Your task to perform on an android device: show emergency info Image 0: 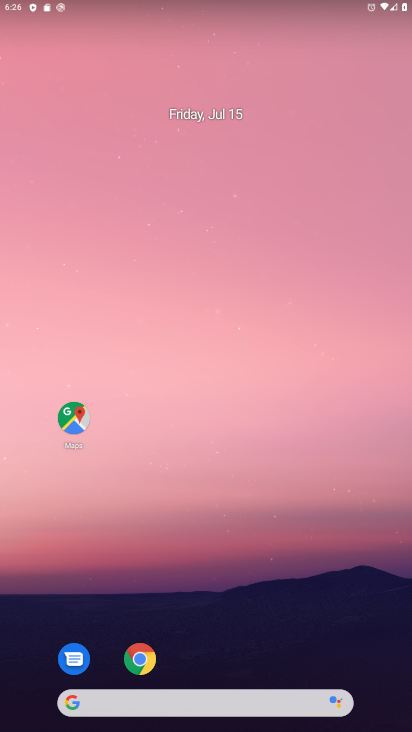
Step 0: drag from (374, 657) to (314, 180)
Your task to perform on an android device: show emergency info Image 1: 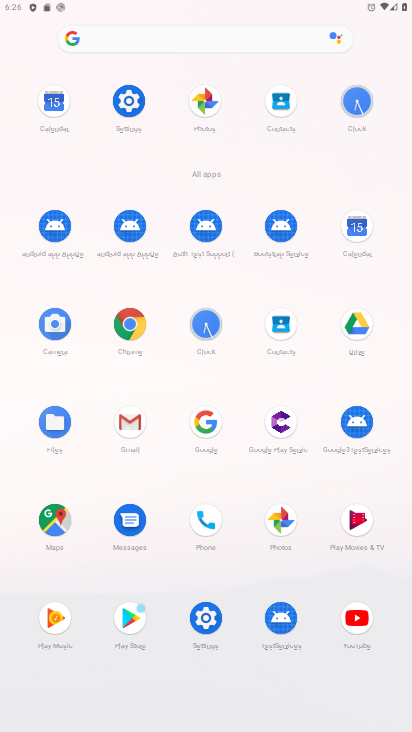
Step 1: click (205, 615)
Your task to perform on an android device: show emergency info Image 2: 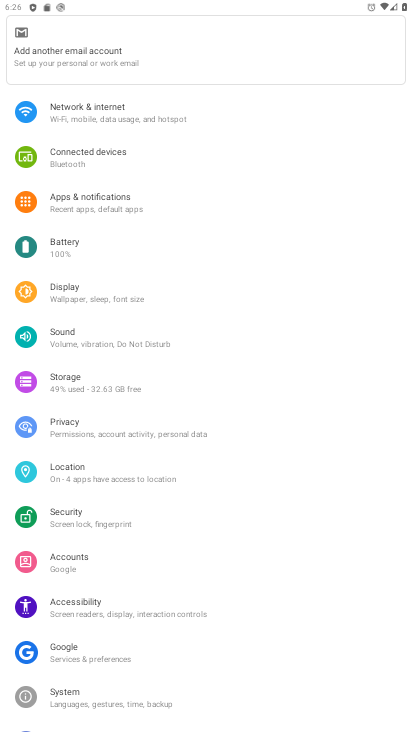
Step 2: drag from (230, 640) to (196, 205)
Your task to perform on an android device: show emergency info Image 3: 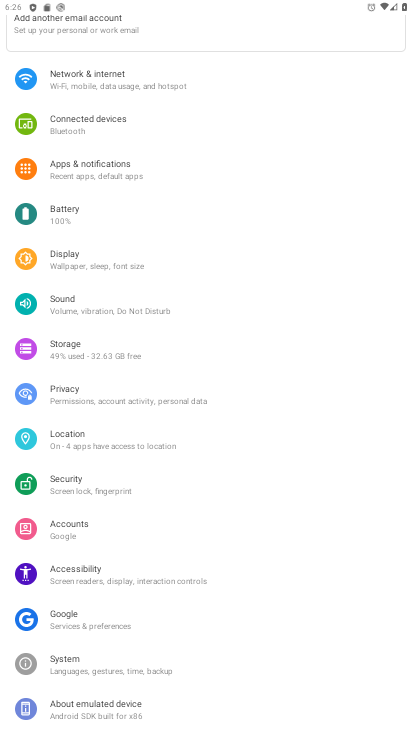
Step 3: click (84, 707)
Your task to perform on an android device: show emergency info Image 4: 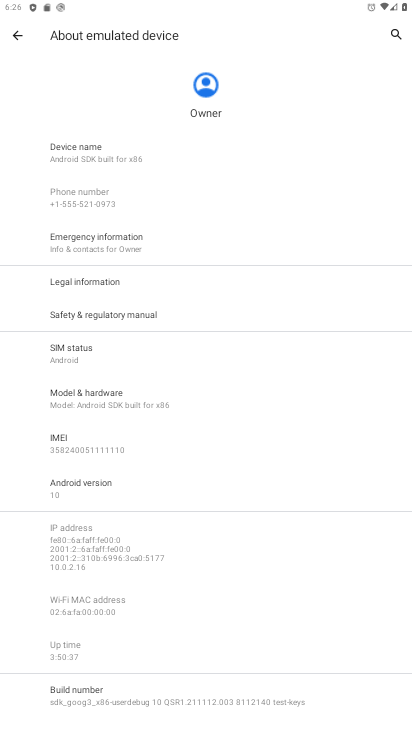
Step 4: drag from (250, 610) to (215, 207)
Your task to perform on an android device: show emergency info Image 5: 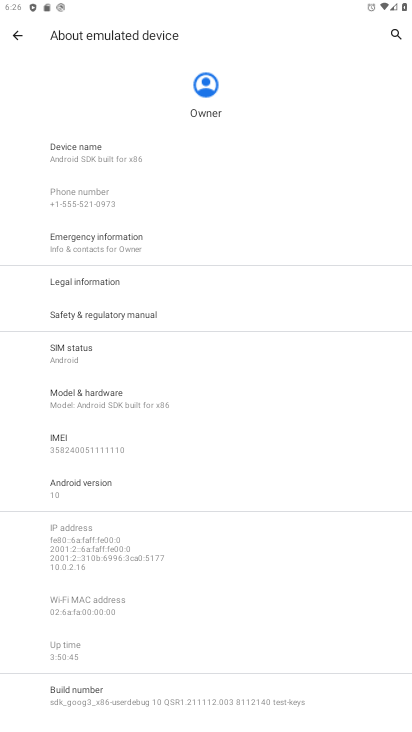
Step 5: click (98, 238)
Your task to perform on an android device: show emergency info Image 6: 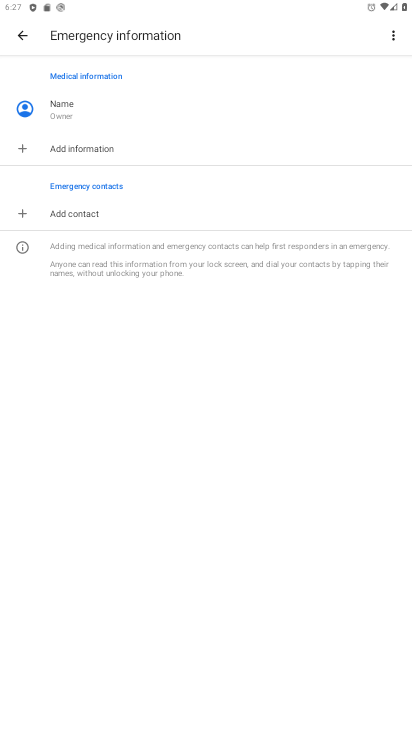
Step 6: task complete